Your task to perform on an android device: snooze an email in the gmail app Image 0: 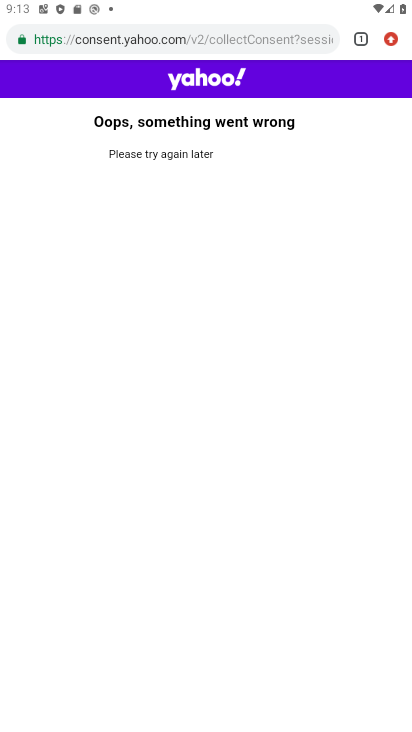
Step 0: press home button
Your task to perform on an android device: snooze an email in the gmail app Image 1: 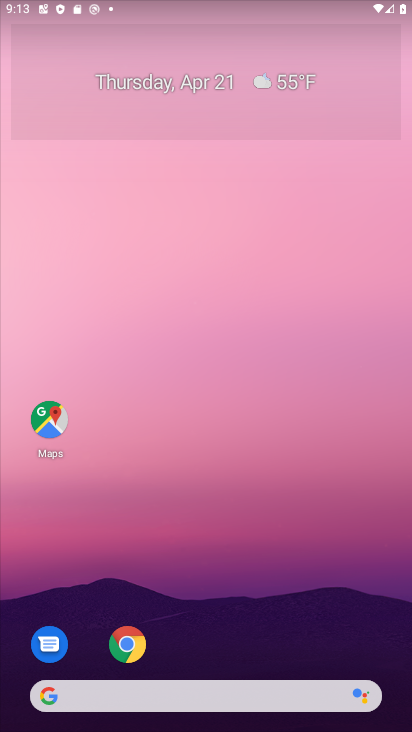
Step 1: drag from (250, 612) to (253, 142)
Your task to perform on an android device: snooze an email in the gmail app Image 2: 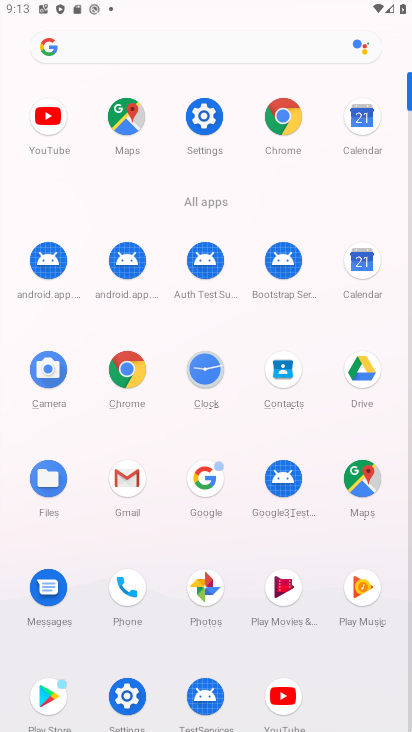
Step 2: click (126, 480)
Your task to perform on an android device: snooze an email in the gmail app Image 3: 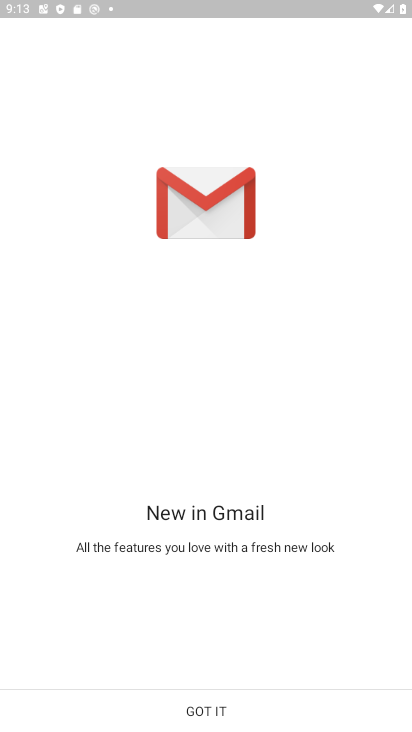
Step 3: click (191, 711)
Your task to perform on an android device: snooze an email in the gmail app Image 4: 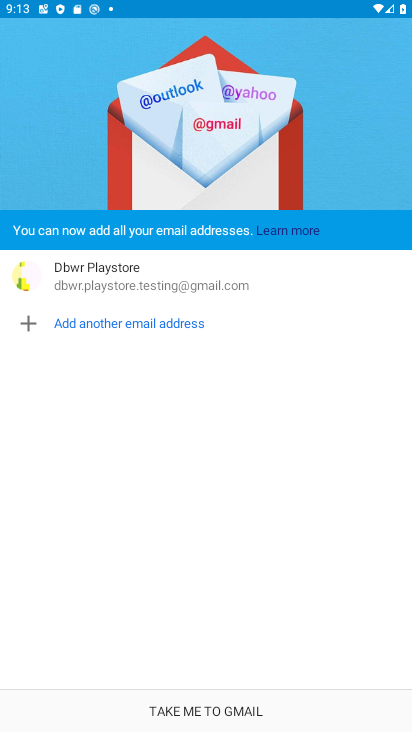
Step 4: click (192, 705)
Your task to perform on an android device: snooze an email in the gmail app Image 5: 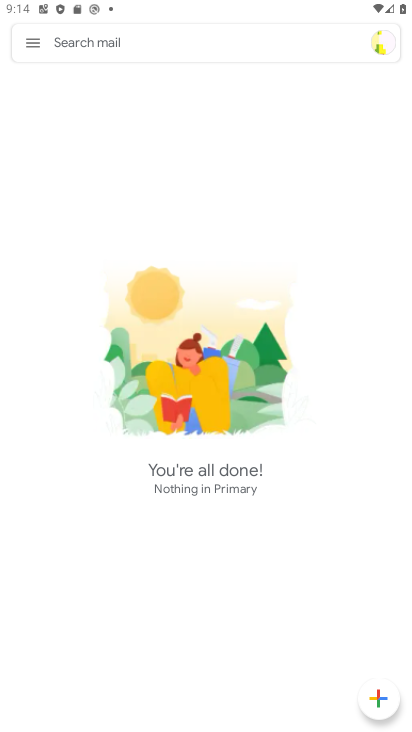
Step 5: click (37, 42)
Your task to perform on an android device: snooze an email in the gmail app Image 6: 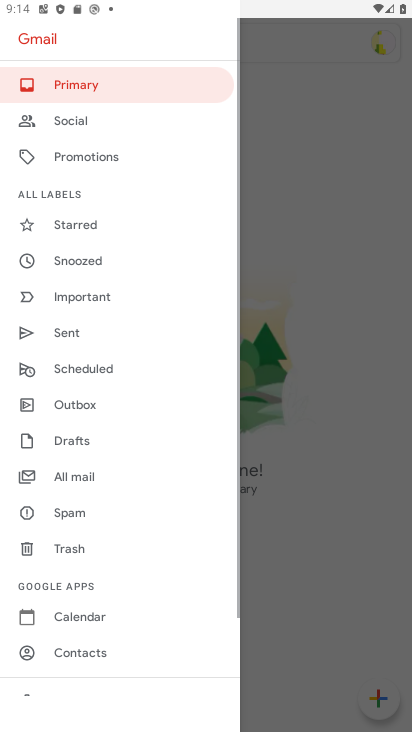
Step 6: drag from (118, 529) to (191, 183)
Your task to perform on an android device: snooze an email in the gmail app Image 7: 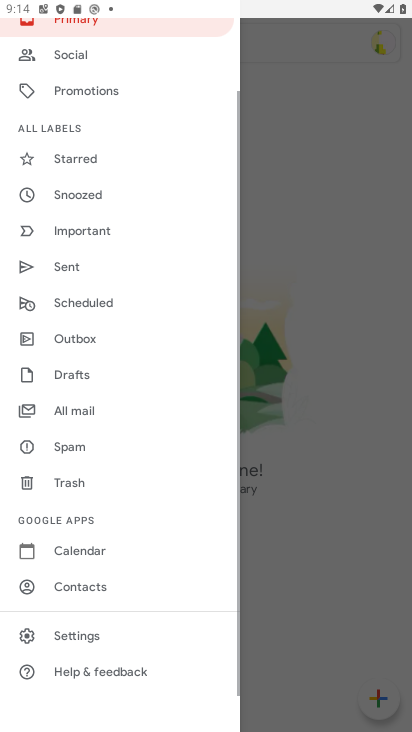
Step 7: click (69, 635)
Your task to perform on an android device: snooze an email in the gmail app Image 8: 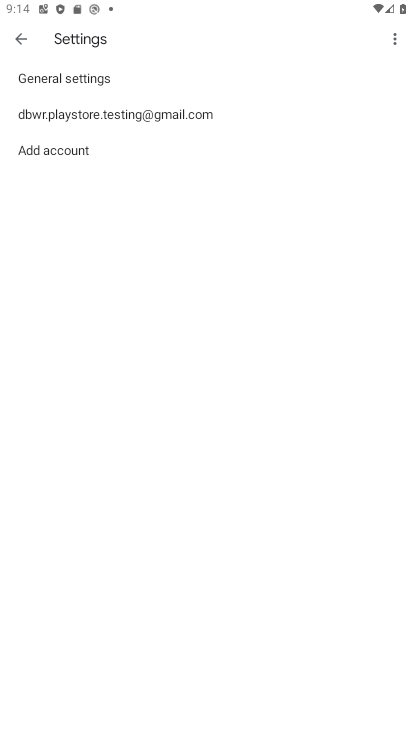
Step 8: click (18, 43)
Your task to perform on an android device: snooze an email in the gmail app Image 9: 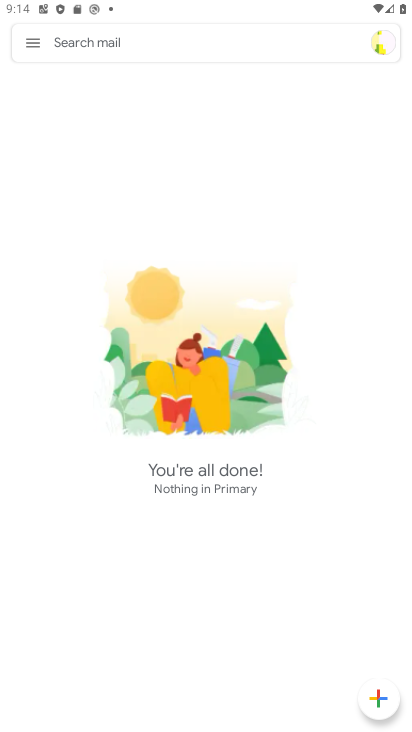
Step 9: click (35, 46)
Your task to perform on an android device: snooze an email in the gmail app Image 10: 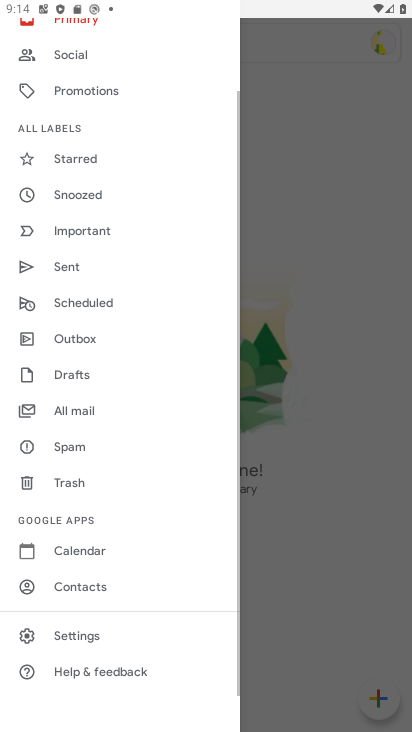
Step 10: click (80, 195)
Your task to perform on an android device: snooze an email in the gmail app Image 11: 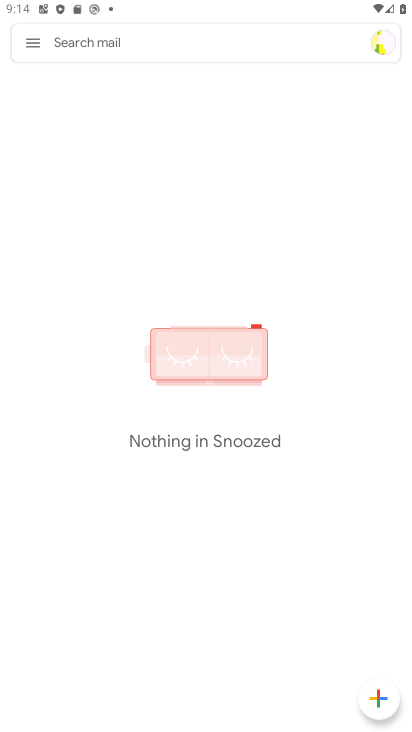
Step 11: task complete